Your task to perform on an android device: What's on my calendar today? Image 0: 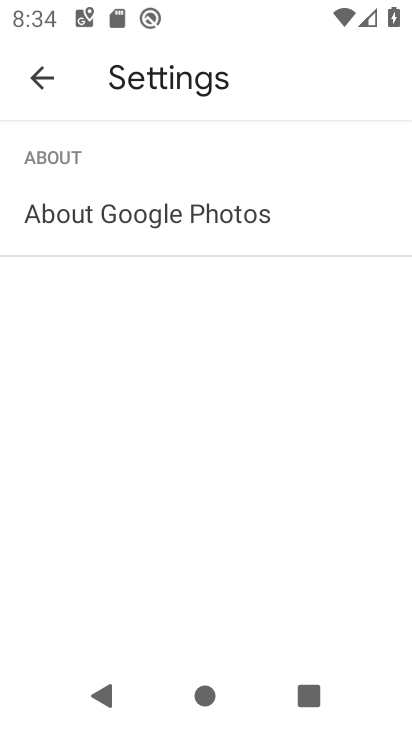
Step 0: press home button
Your task to perform on an android device: What's on my calendar today? Image 1: 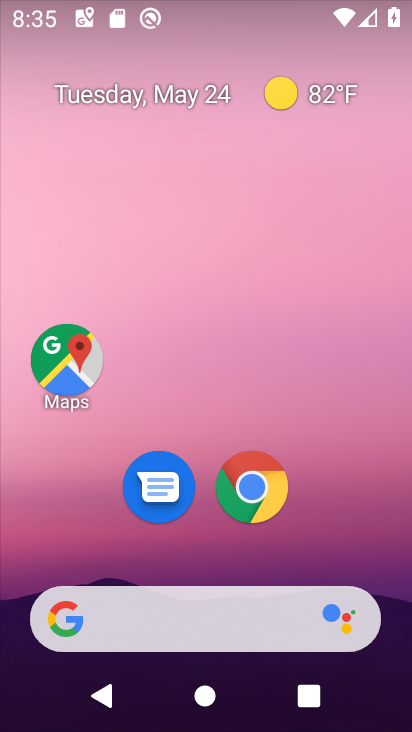
Step 1: drag from (378, 476) to (379, 75)
Your task to perform on an android device: What's on my calendar today? Image 2: 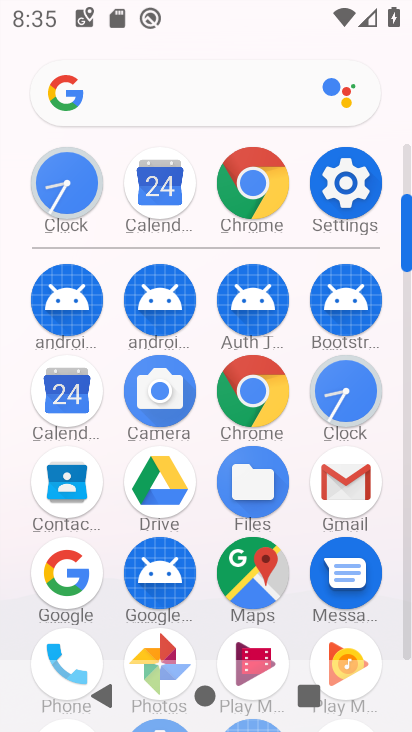
Step 2: click (70, 413)
Your task to perform on an android device: What's on my calendar today? Image 3: 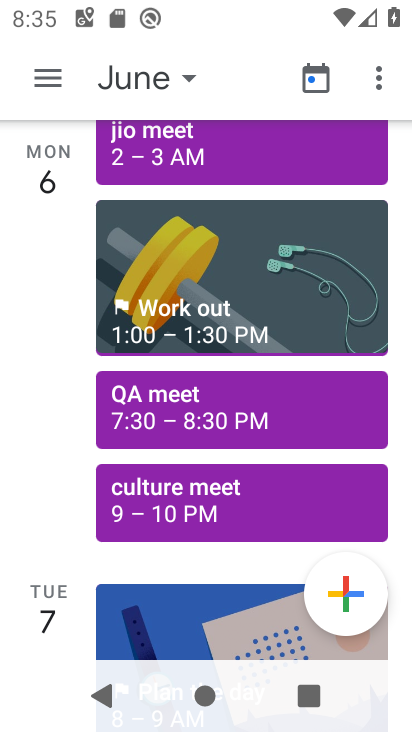
Step 3: click (144, 85)
Your task to perform on an android device: What's on my calendar today? Image 4: 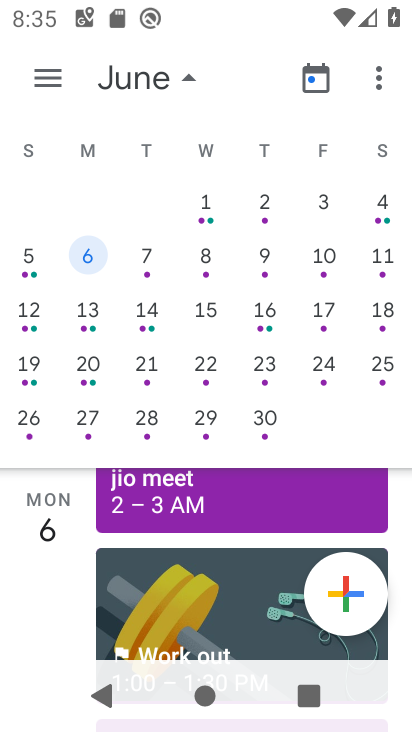
Step 4: click (126, 72)
Your task to perform on an android device: What's on my calendar today? Image 5: 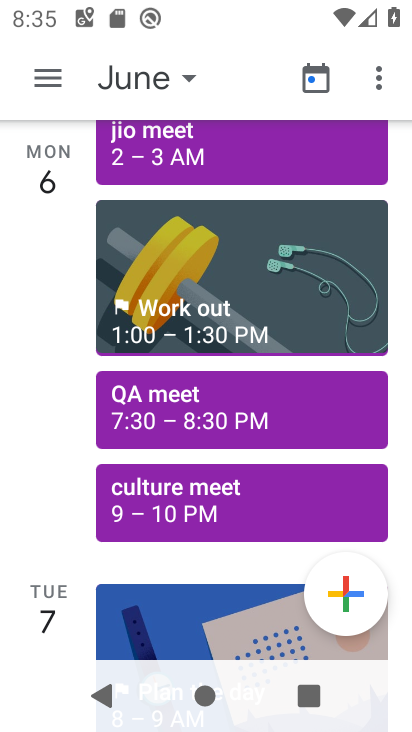
Step 5: click (117, 93)
Your task to perform on an android device: What's on my calendar today? Image 6: 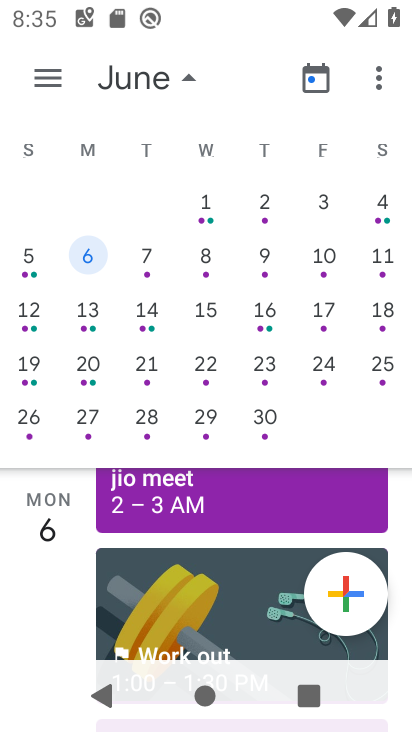
Step 6: drag from (67, 343) to (341, 300)
Your task to perform on an android device: What's on my calendar today? Image 7: 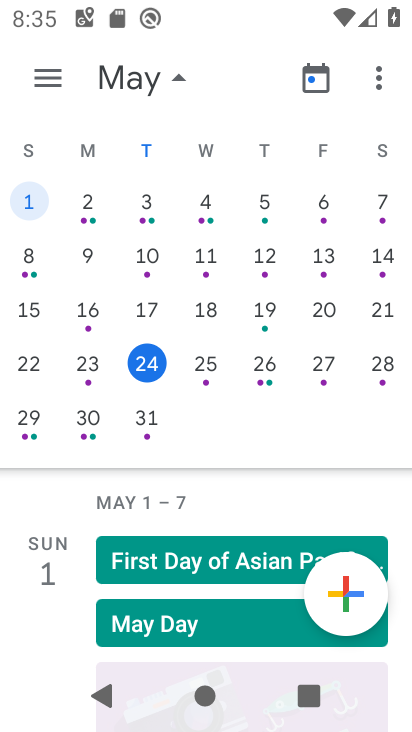
Step 7: click (215, 363)
Your task to perform on an android device: What's on my calendar today? Image 8: 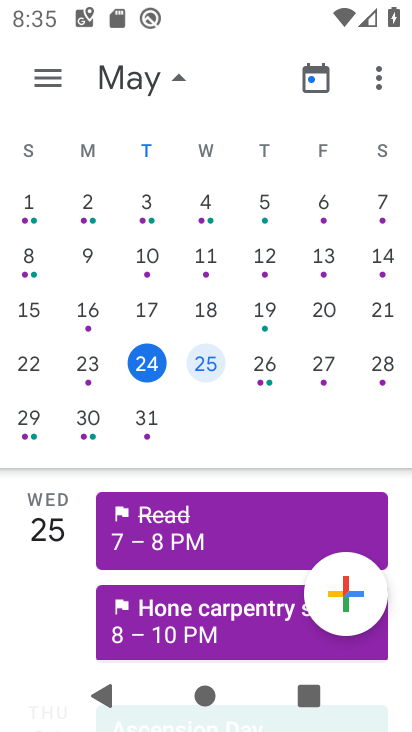
Step 8: task complete